Your task to perform on an android device: Empty the shopping cart on newegg. Image 0: 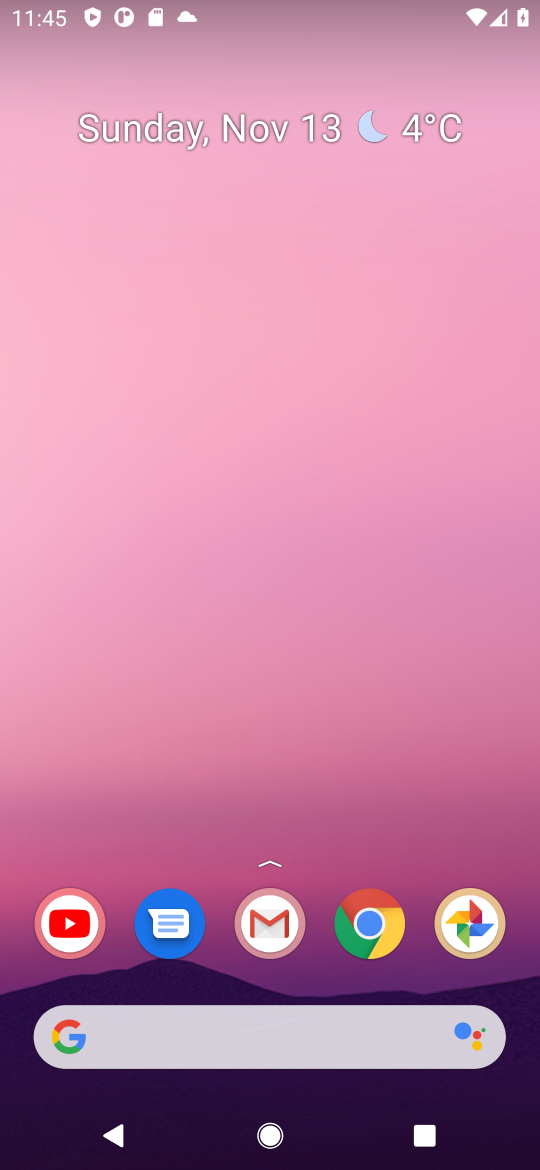
Step 0: click (370, 897)
Your task to perform on an android device: Empty the shopping cart on newegg. Image 1: 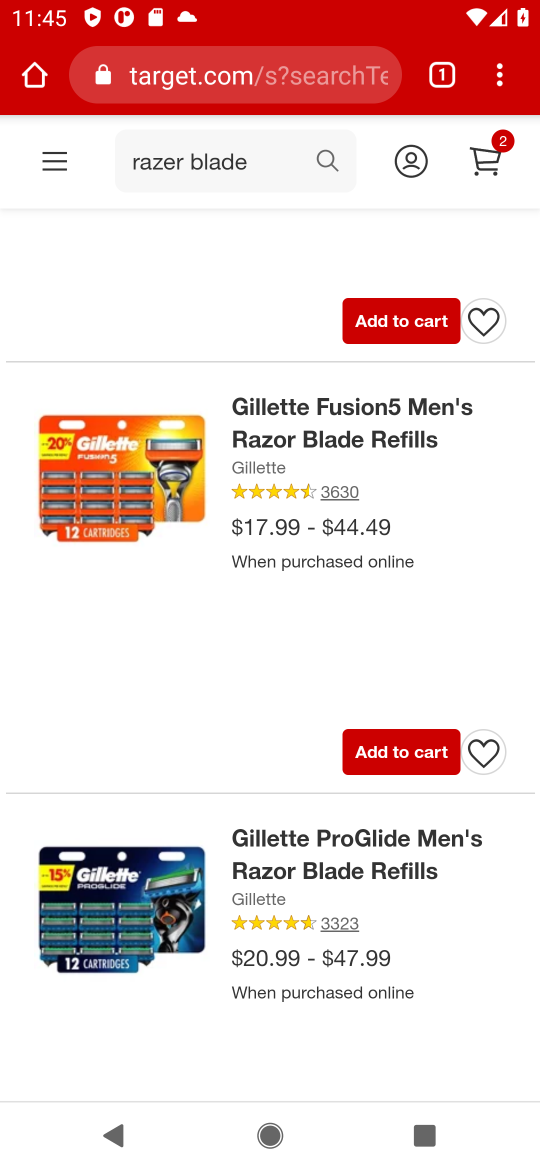
Step 1: click (165, 76)
Your task to perform on an android device: Empty the shopping cart on newegg. Image 2: 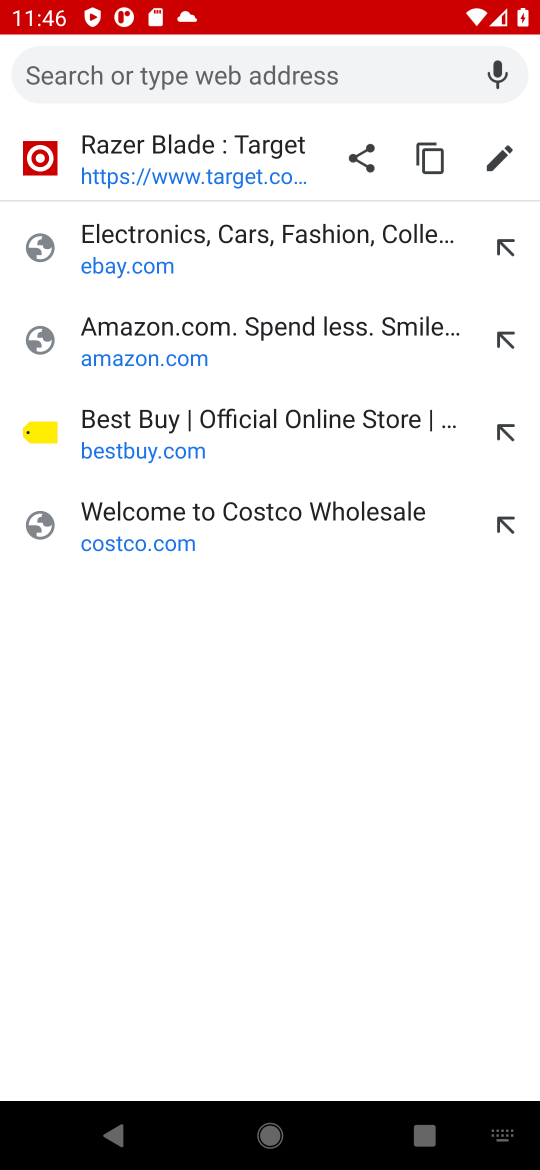
Step 2: press enter
Your task to perform on an android device: Empty the shopping cart on newegg. Image 3: 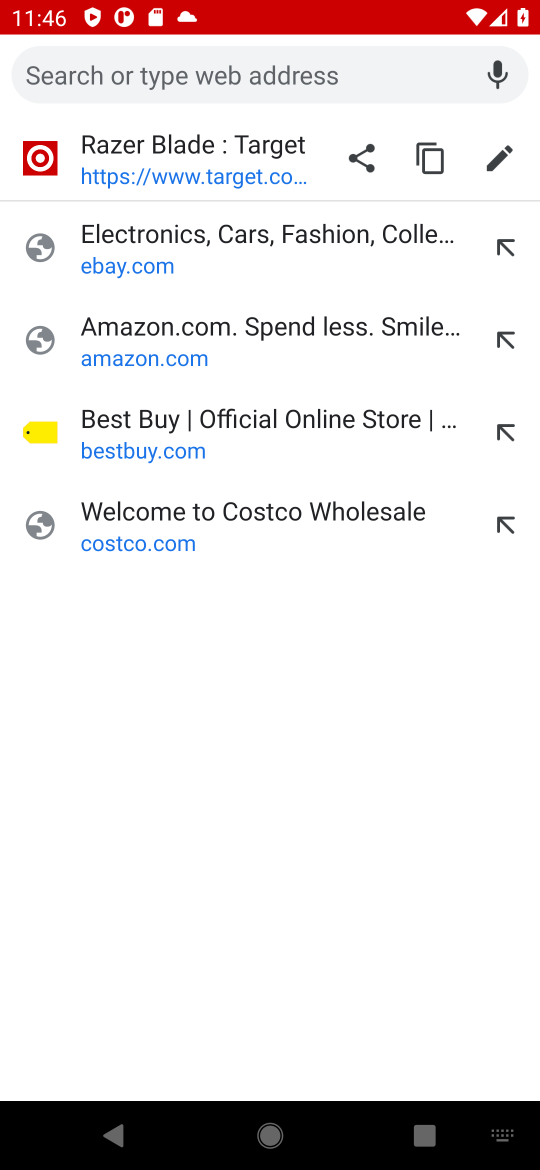
Step 3: type "newegg"
Your task to perform on an android device: Empty the shopping cart on newegg. Image 4: 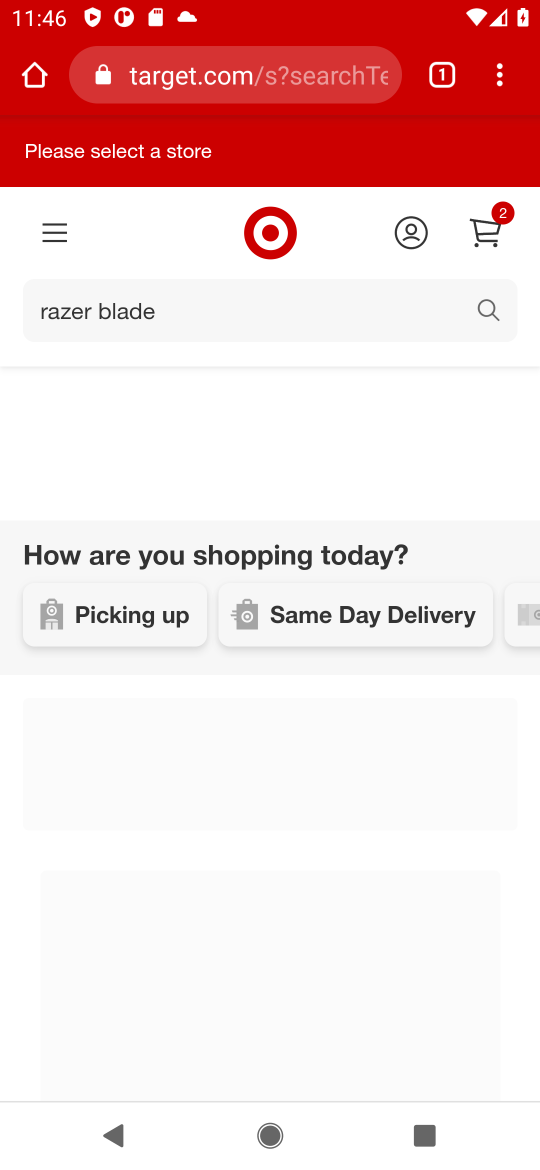
Step 4: click (216, 68)
Your task to perform on an android device: Empty the shopping cart on newegg. Image 5: 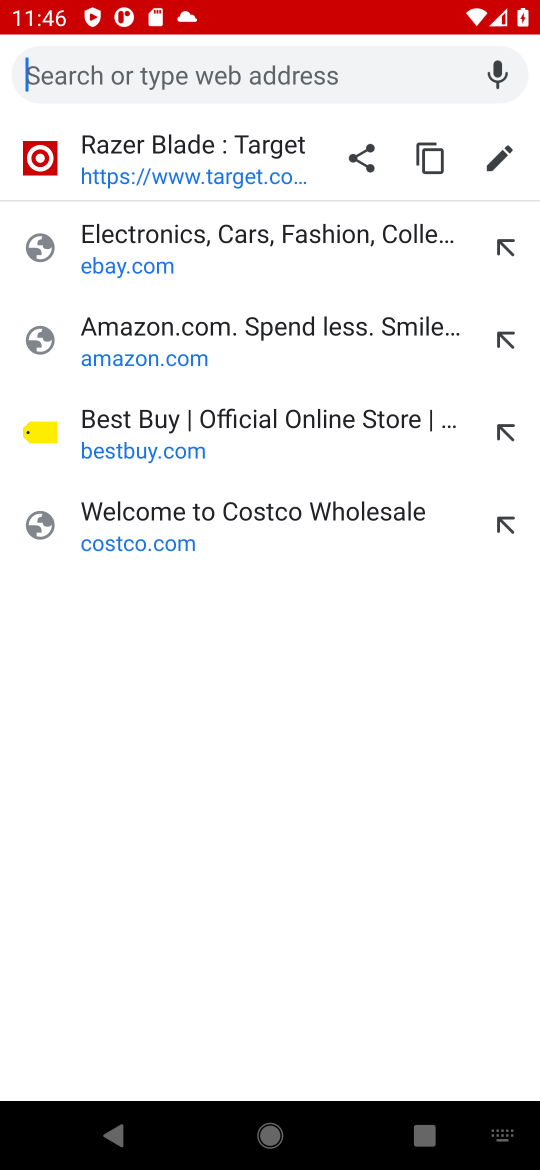
Step 5: type "newegg"
Your task to perform on an android device: Empty the shopping cart on newegg. Image 6: 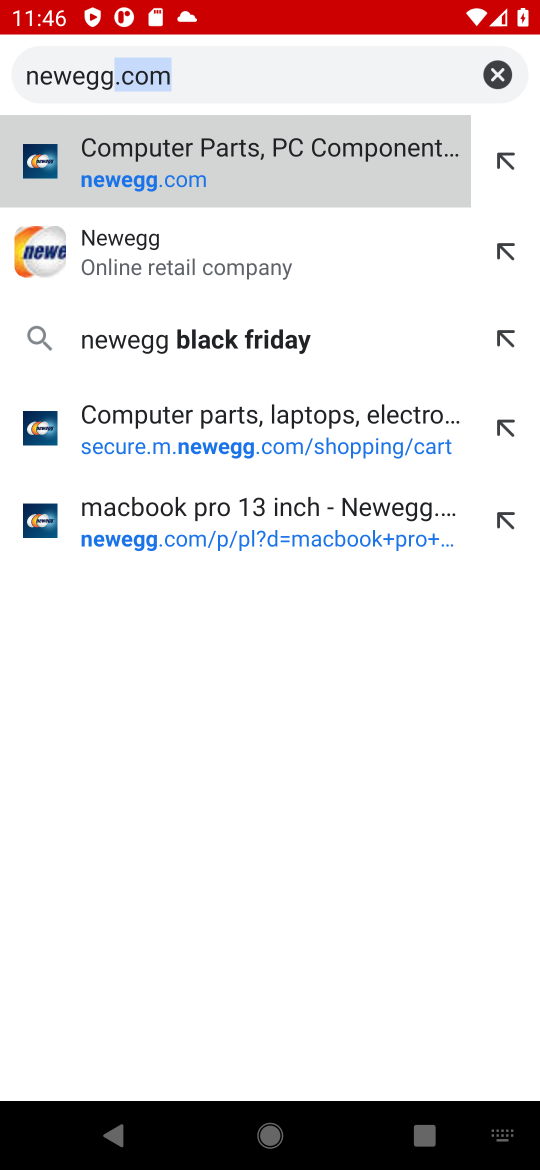
Step 6: press enter
Your task to perform on an android device: Empty the shopping cart on newegg. Image 7: 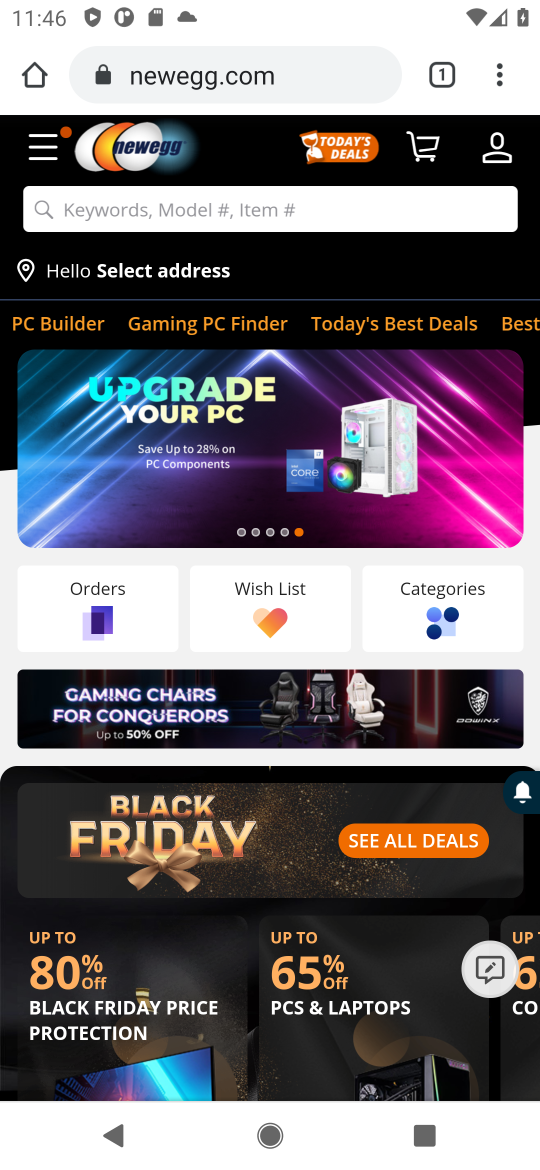
Step 7: task complete